Your task to perform on an android device: add a label to a message in the gmail app Image 0: 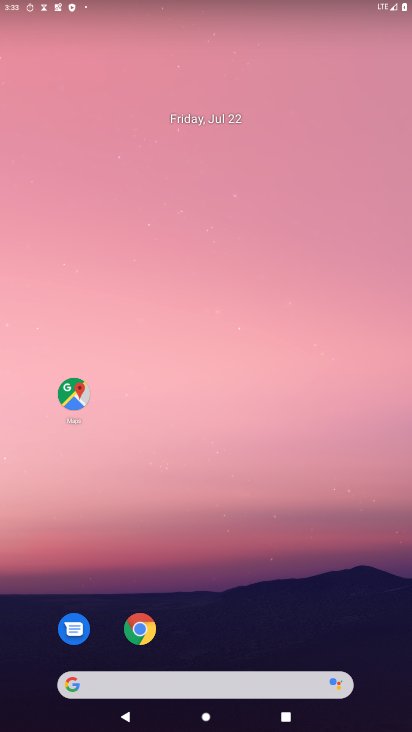
Step 0: drag from (244, 679) to (281, 44)
Your task to perform on an android device: add a label to a message in the gmail app Image 1: 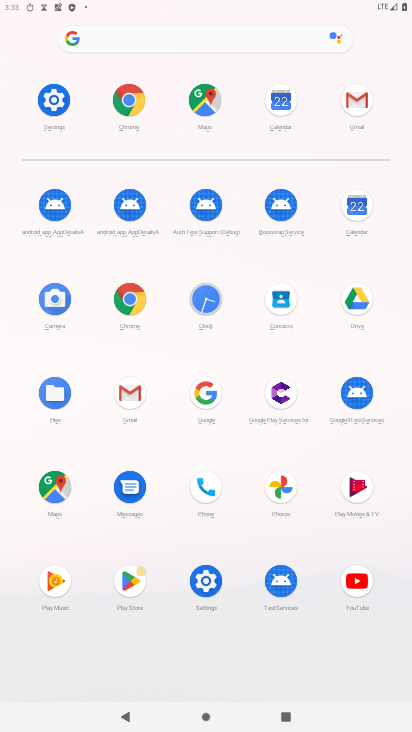
Step 1: click (134, 389)
Your task to perform on an android device: add a label to a message in the gmail app Image 2: 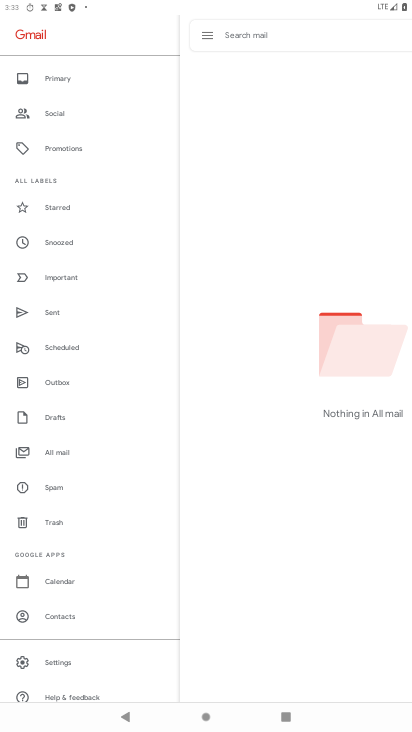
Step 2: click (71, 659)
Your task to perform on an android device: add a label to a message in the gmail app Image 3: 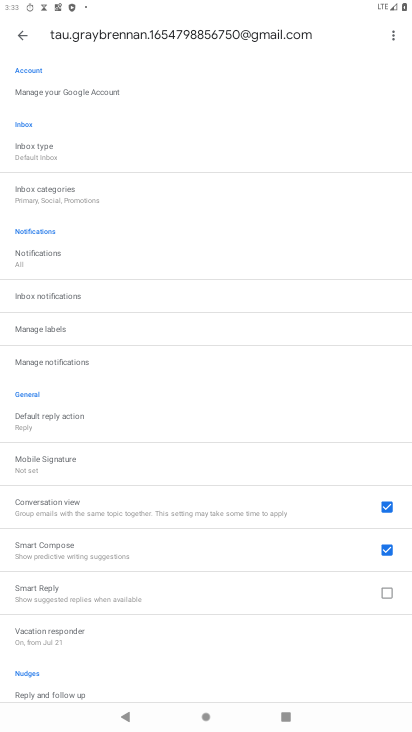
Step 3: press home button
Your task to perform on an android device: add a label to a message in the gmail app Image 4: 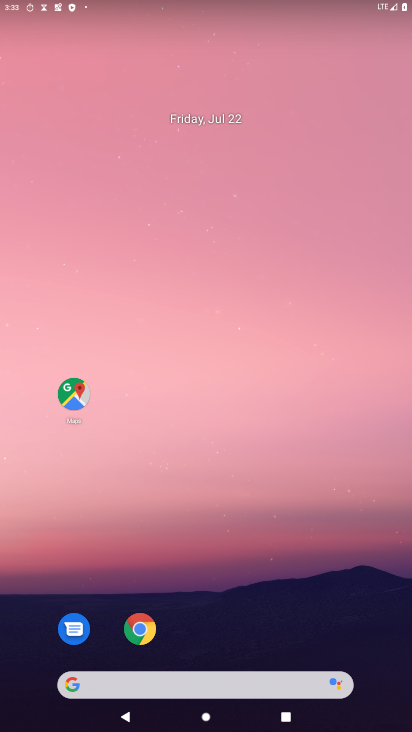
Step 4: drag from (262, 441) to (317, 132)
Your task to perform on an android device: add a label to a message in the gmail app Image 5: 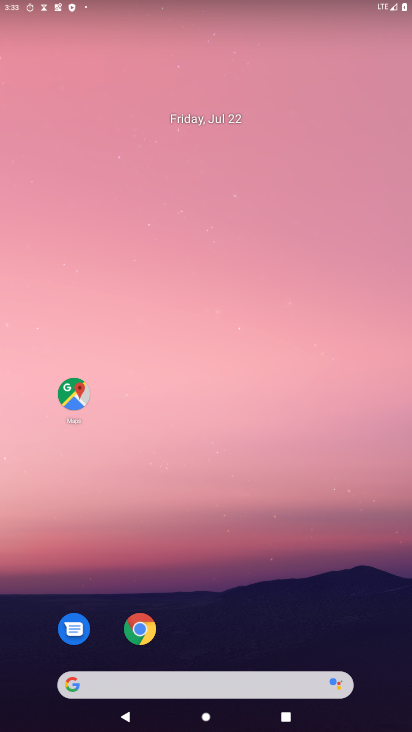
Step 5: drag from (176, 678) to (264, 2)
Your task to perform on an android device: add a label to a message in the gmail app Image 6: 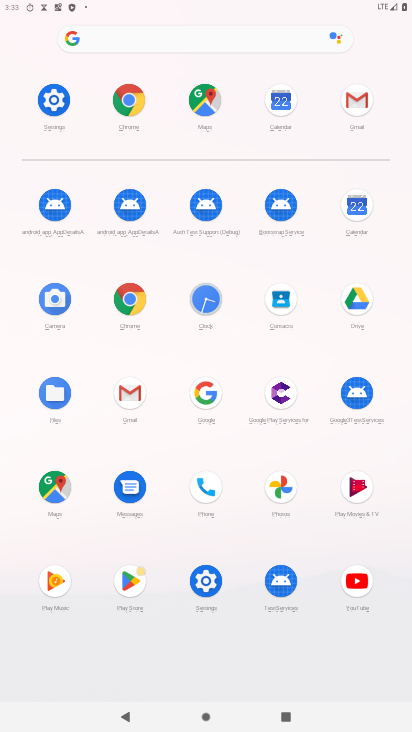
Step 6: click (127, 388)
Your task to perform on an android device: add a label to a message in the gmail app Image 7: 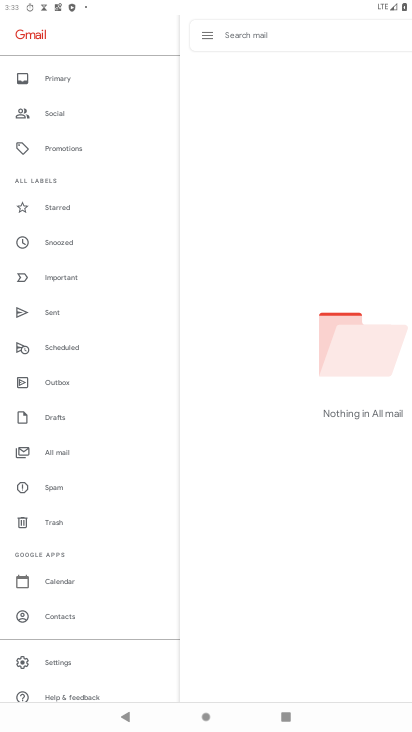
Step 7: task complete